Your task to perform on an android device: allow cookies in the chrome app Image 0: 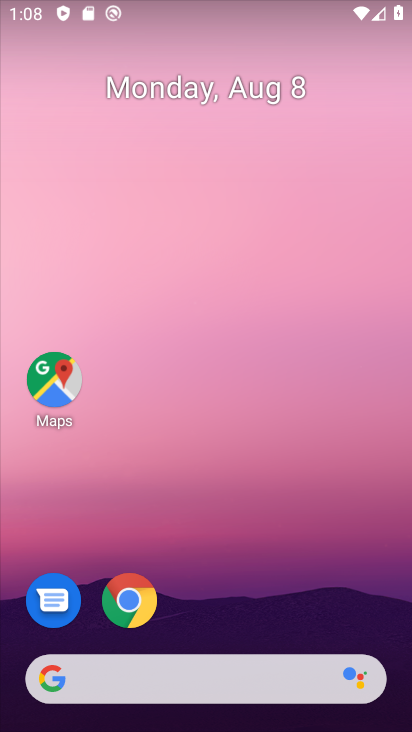
Step 0: press home button
Your task to perform on an android device: allow cookies in the chrome app Image 1: 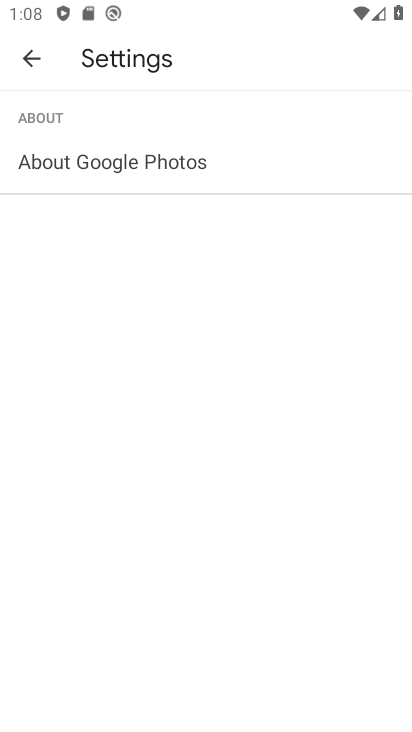
Step 1: click (305, 648)
Your task to perform on an android device: allow cookies in the chrome app Image 2: 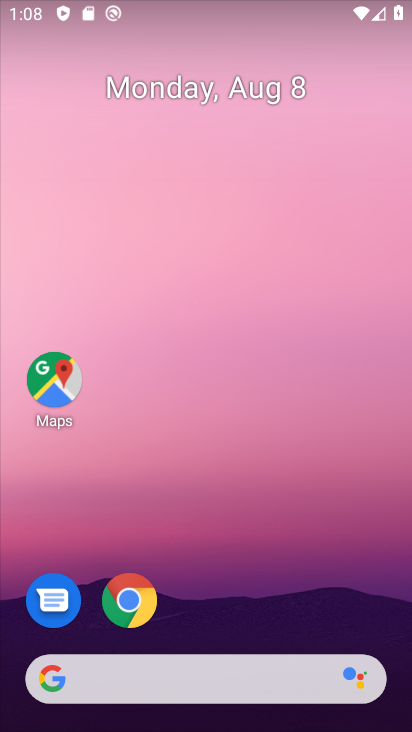
Step 2: drag from (235, 641) to (271, 306)
Your task to perform on an android device: allow cookies in the chrome app Image 3: 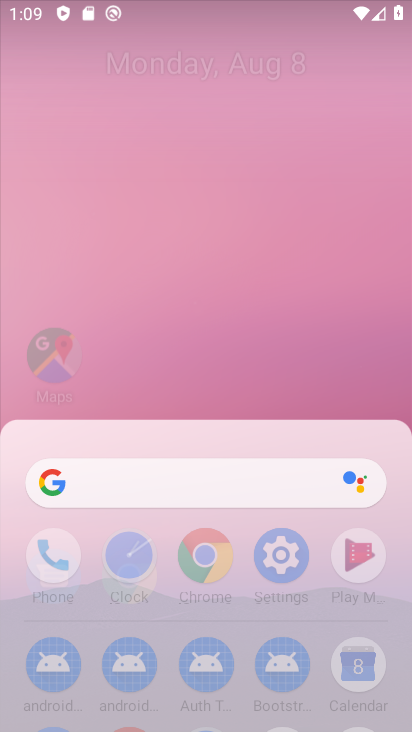
Step 3: click (330, 68)
Your task to perform on an android device: allow cookies in the chrome app Image 4: 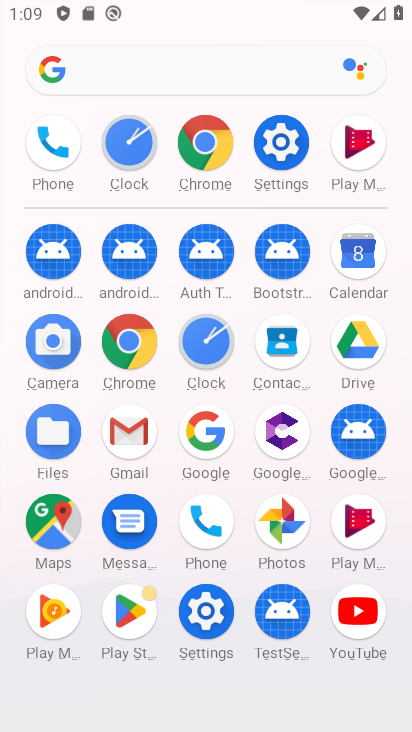
Step 4: click (200, 166)
Your task to perform on an android device: allow cookies in the chrome app Image 5: 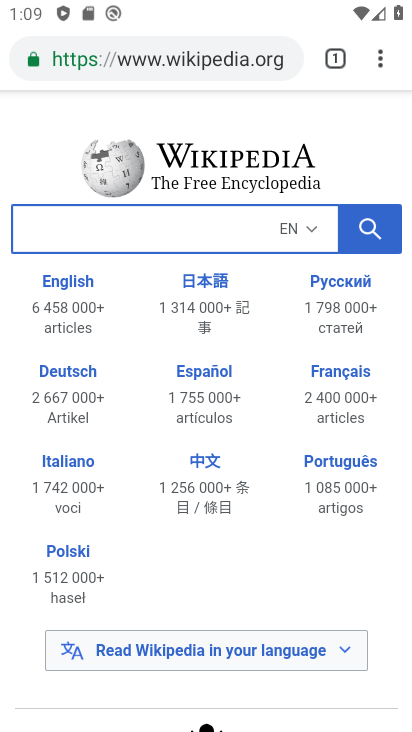
Step 5: drag from (371, 60) to (153, 620)
Your task to perform on an android device: allow cookies in the chrome app Image 6: 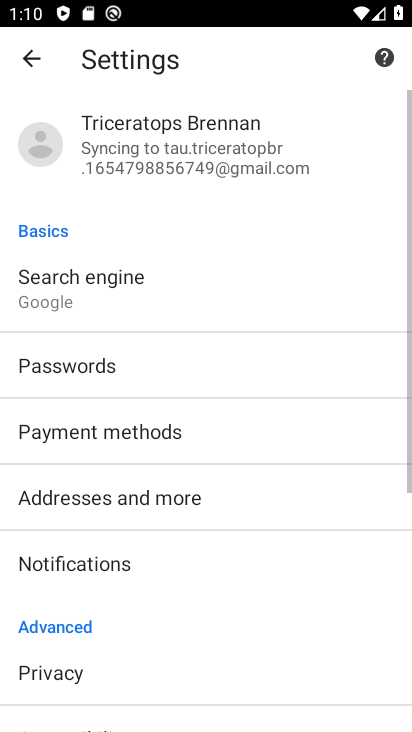
Step 6: drag from (118, 645) to (172, 247)
Your task to perform on an android device: allow cookies in the chrome app Image 7: 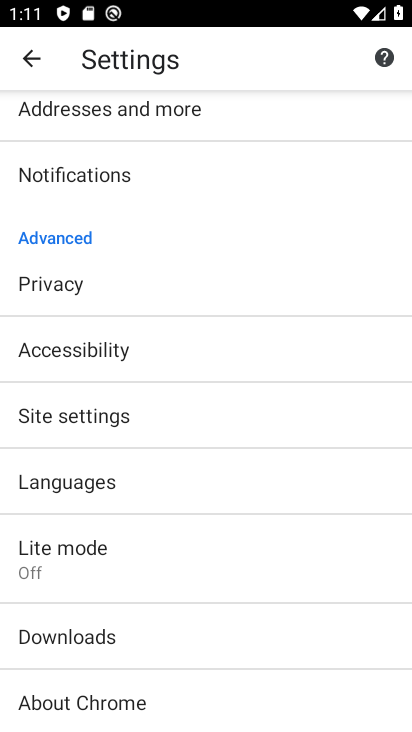
Step 7: click (124, 439)
Your task to perform on an android device: allow cookies in the chrome app Image 8: 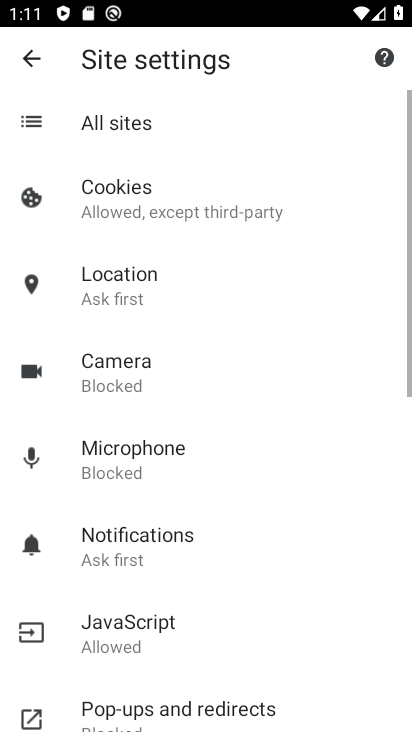
Step 8: click (101, 234)
Your task to perform on an android device: allow cookies in the chrome app Image 9: 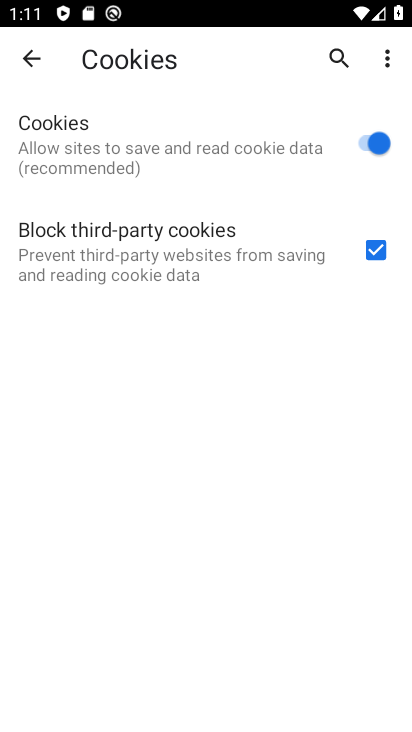
Step 9: task complete